Your task to perform on an android device: set the stopwatch Image 0: 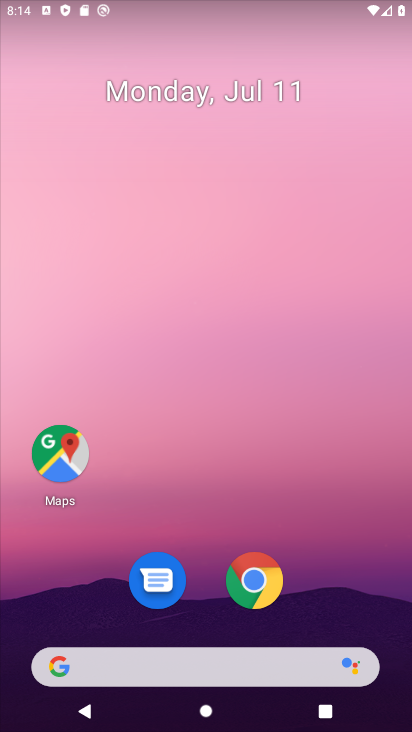
Step 0: drag from (317, 615) to (364, 95)
Your task to perform on an android device: set the stopwatch Image 1: 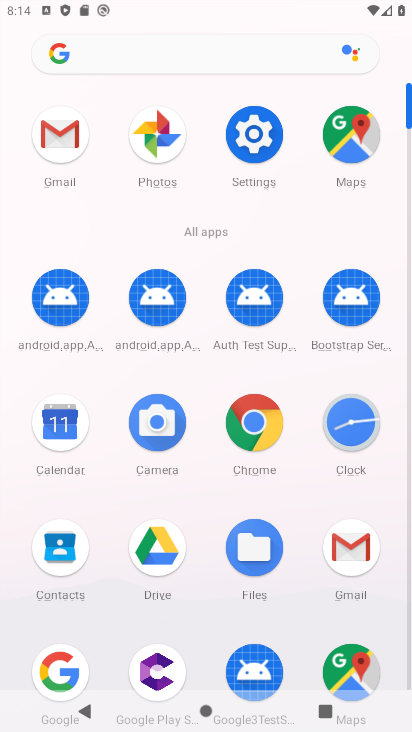
Step 1: click (357, 423)
Your task to perform on an android device: set the stopwatch Image 2: 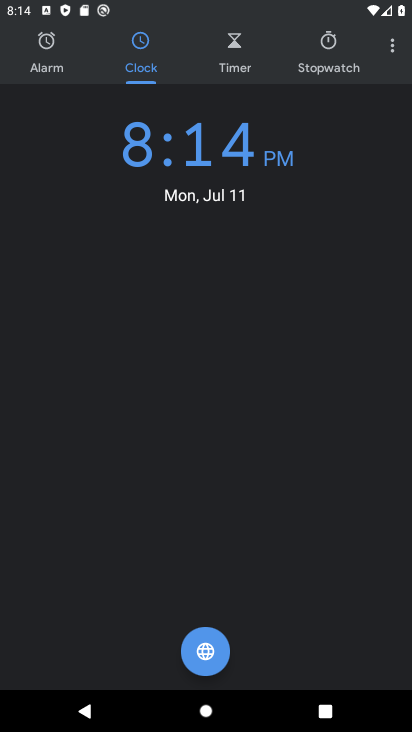
Step 2: click (339, 48)
Your task to perform on an android device: set the stopwatch Image 3: 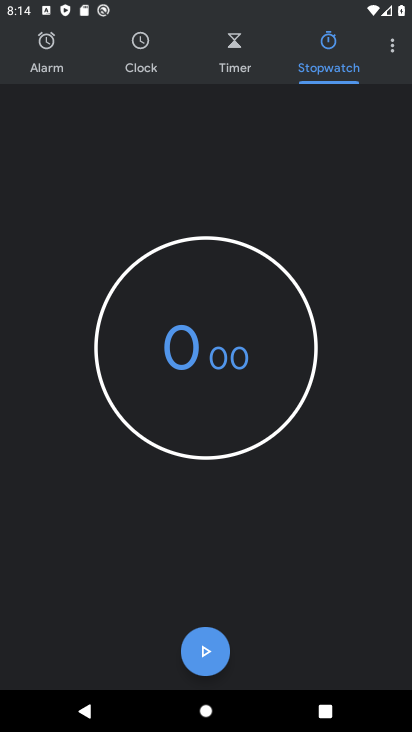
Step 3: task complete